Your task to perform on an android device: visit the assistant section in the google photos Image 0: 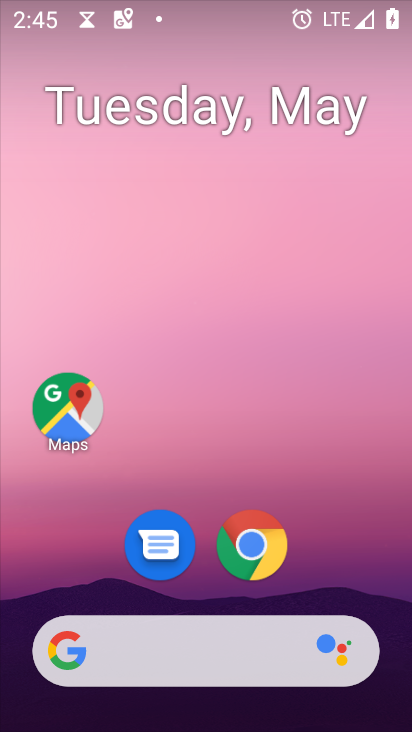
Step 0: drag from (364, 573) to (264, 37)
Your task to perform on an android device: visit the assistant section in the google photos Image 1: 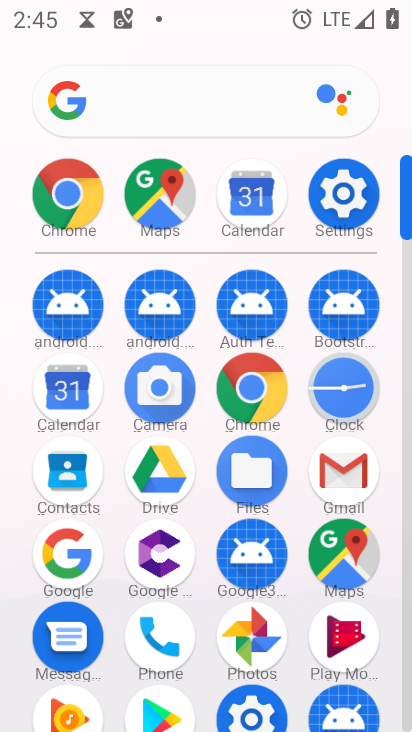
Step 1: drag from (12, 601) to (7, 274)
Your task to perform on an android device: visit the assistant section in the google photos Image 2: 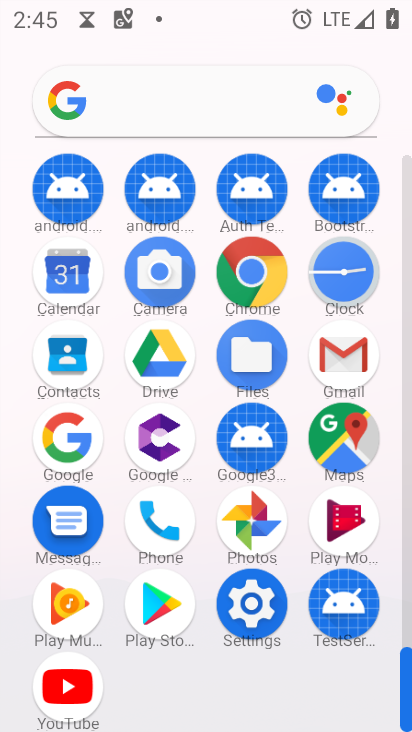
Step 2: click (250, 520)
Your task to perform on an android device: visit the assistant section in the google photos Image 3: 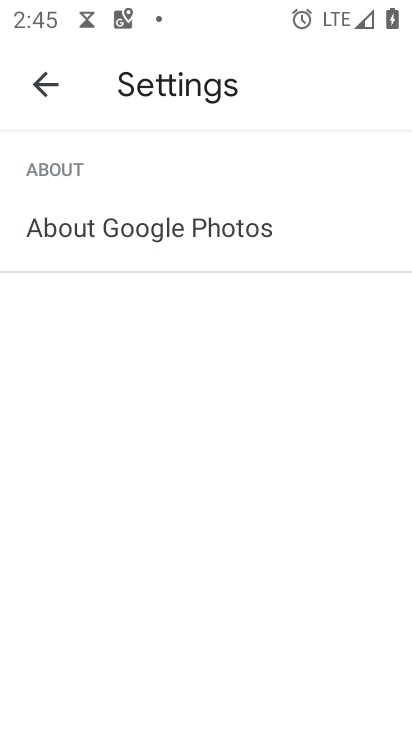
Step 3: click (45, 77)
Your task to perform on an android device: visit the assistant section in the google photos Image 4: 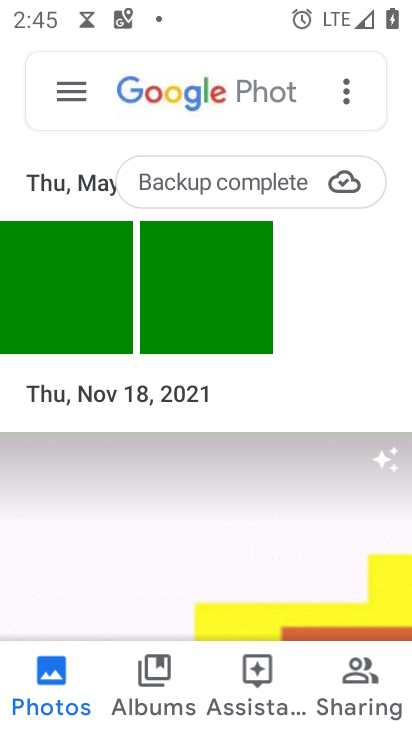
Step 4: click (255, 687)
Your task to perform on an android device: visit the assistant section in the google photos Image 5: 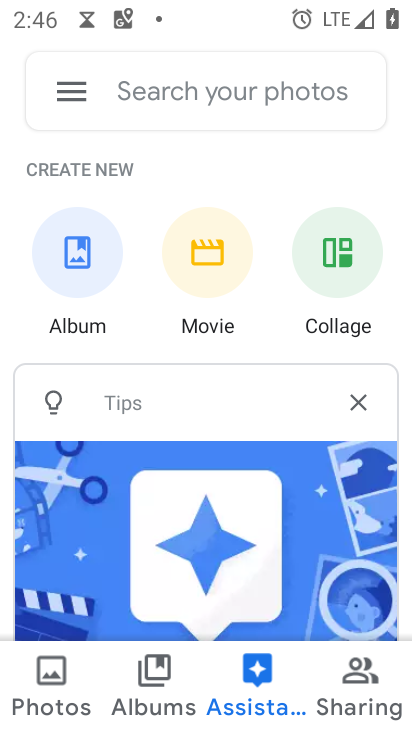
Step 5: task complete